Your task to perform on an android device: Open Google Chrome Image 0: 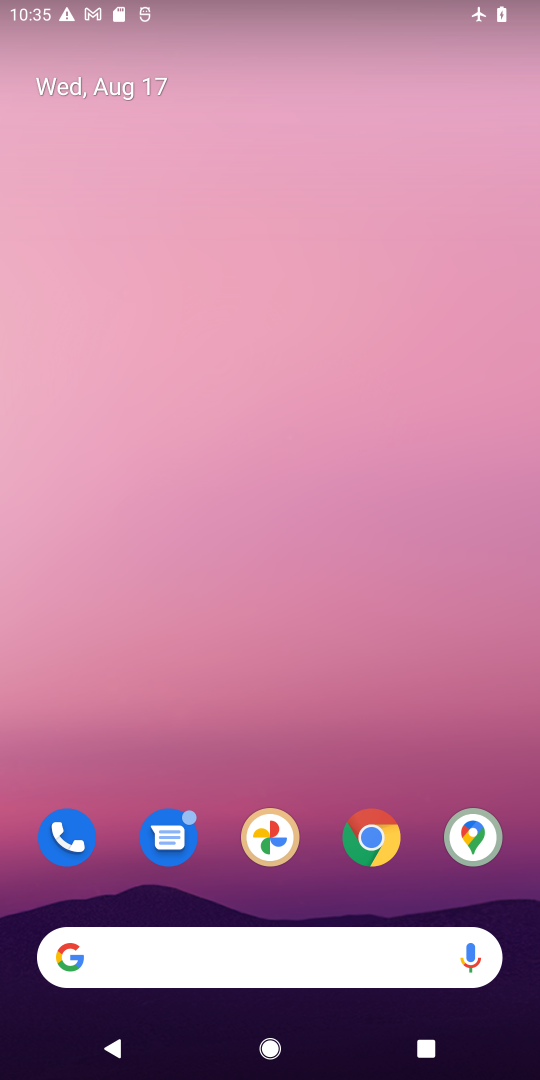
Step 0: click (373, 839)
Your task to perform on an android device: Open Google Chrome Image 1: 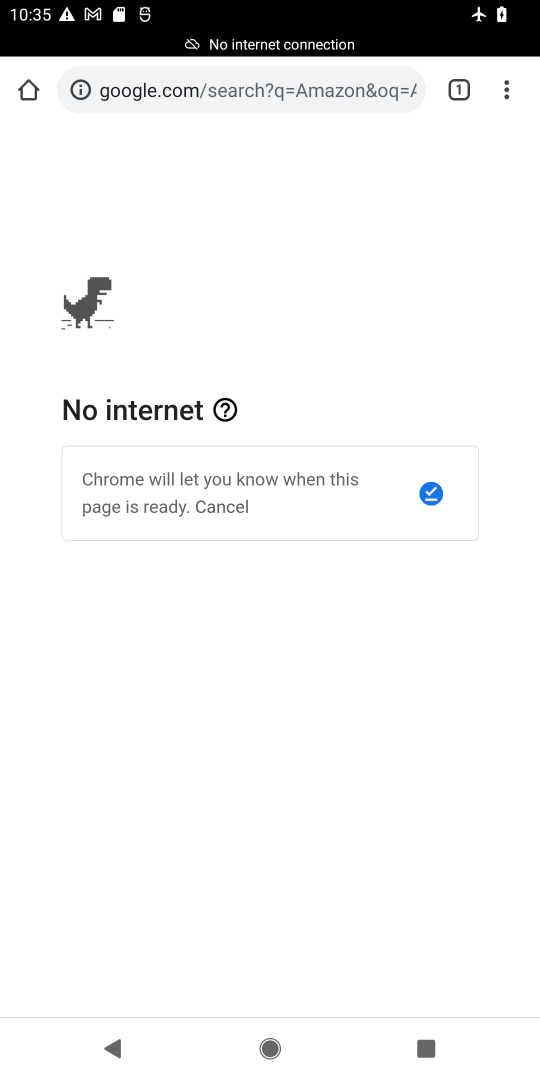
Step 1: task complete